Your task to perform on an android device: Search for Mexican restaurants on Maps Image 0: 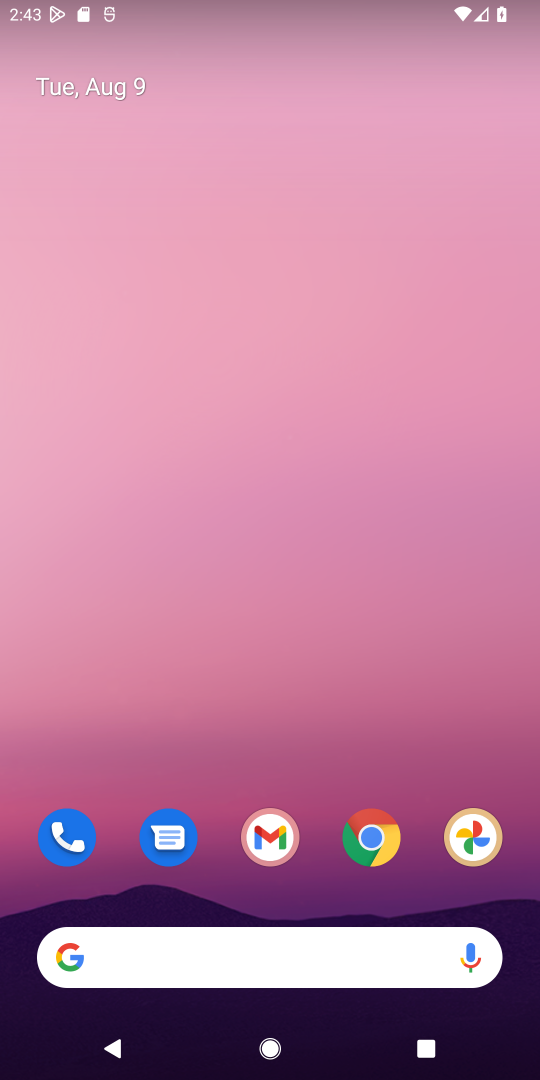
Step 0: drag from (279, 886) to (346, 364)
Your task to perform on an android device: Search for Mexican restaurants on Maps Image 1: 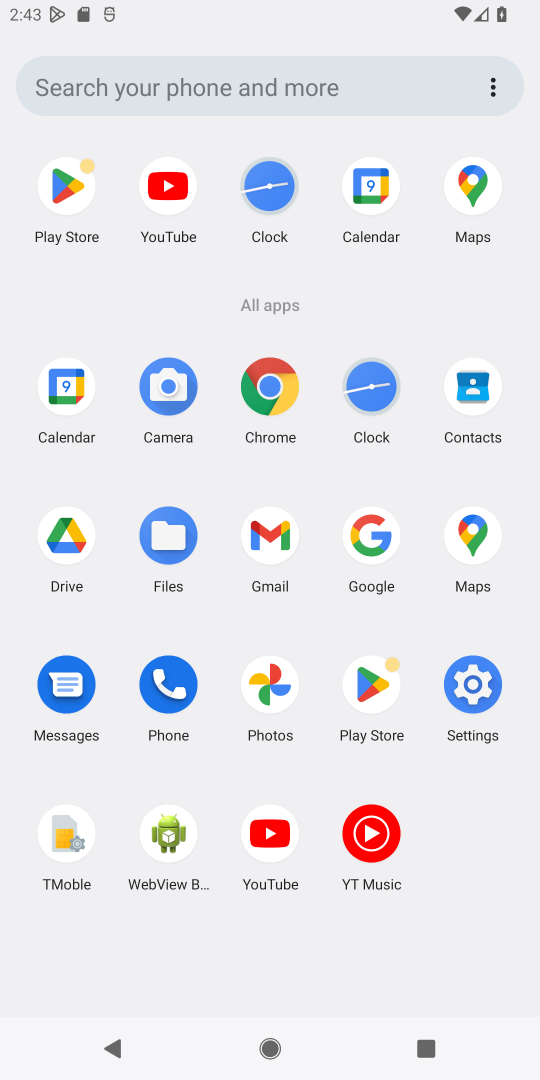
Step 1: click (467, 187)
Your task to perform on an android device: Search for Mexican restaurants on Maps Image 2: 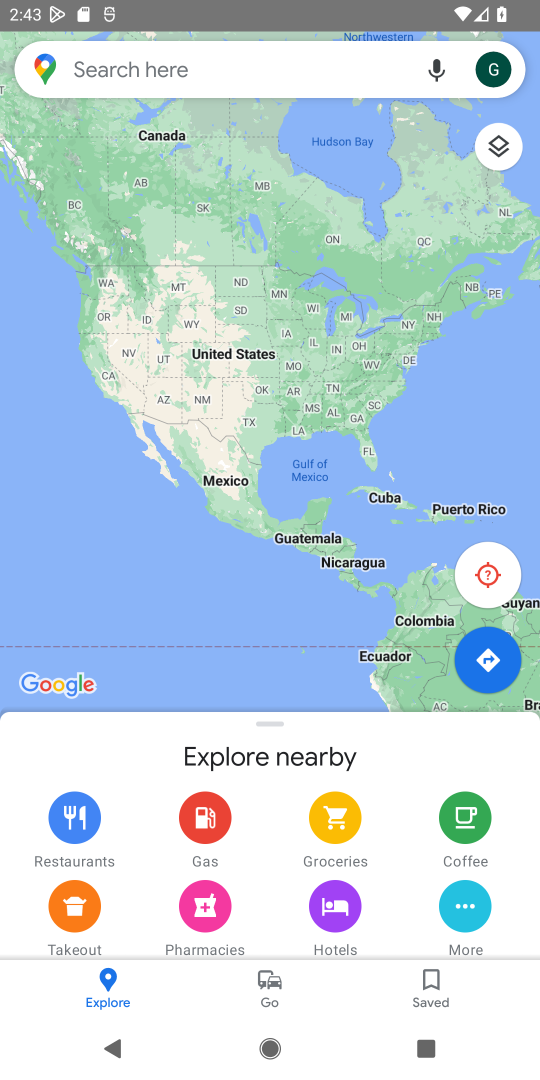
Step 2: click (308, 77)
Your task to perform on an android device: Search for Mexican restaurants on Maps Image 3: 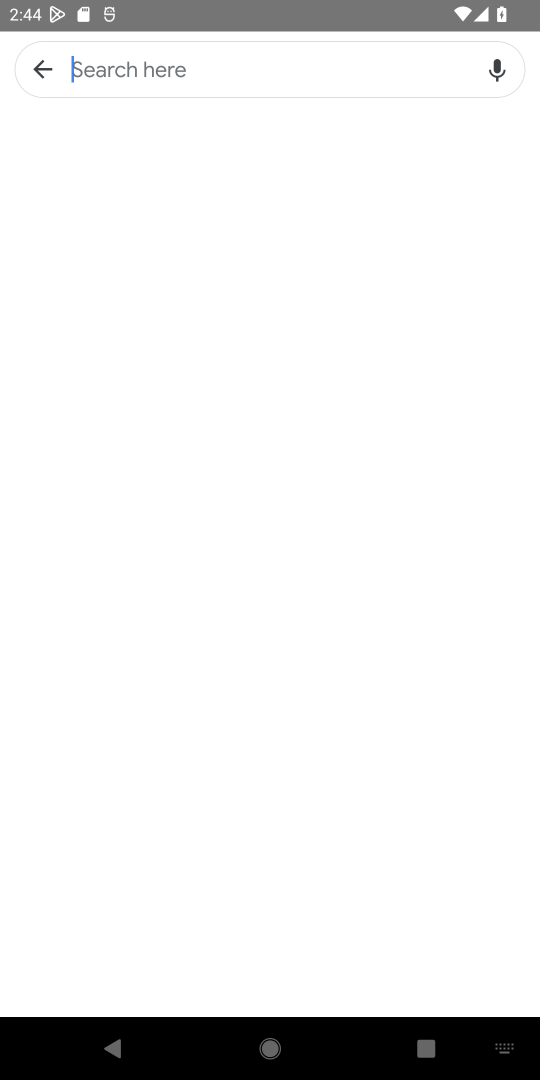
Step 3: click (257, 73)
Your task to perform on an android device: Search for Mexican restaurants on Maps Image 4: 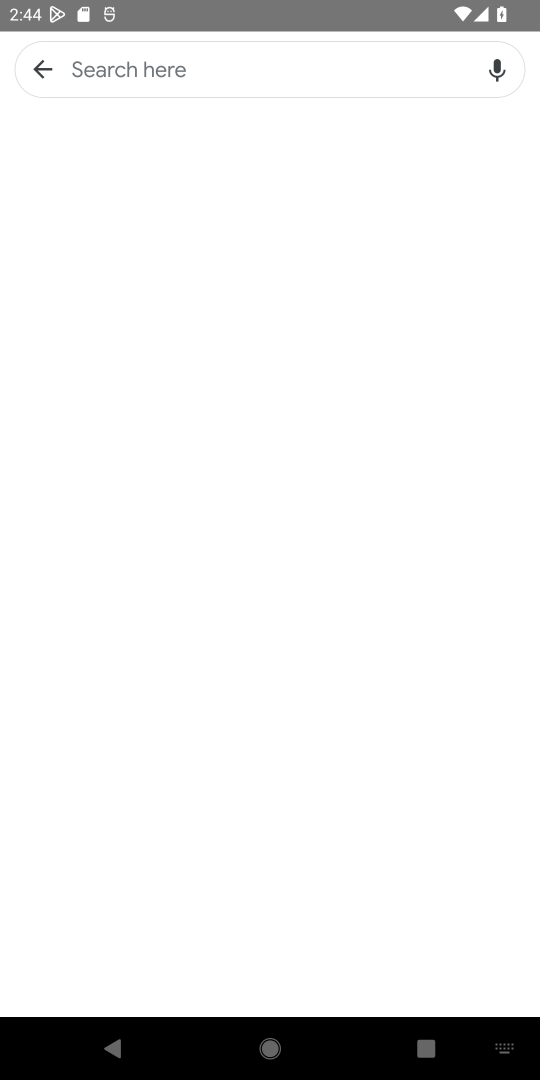
Step 4: type " Mexican restaurants  "
Your task to perform on an android device: Search for Mexican restaurants on Maps Image 5: 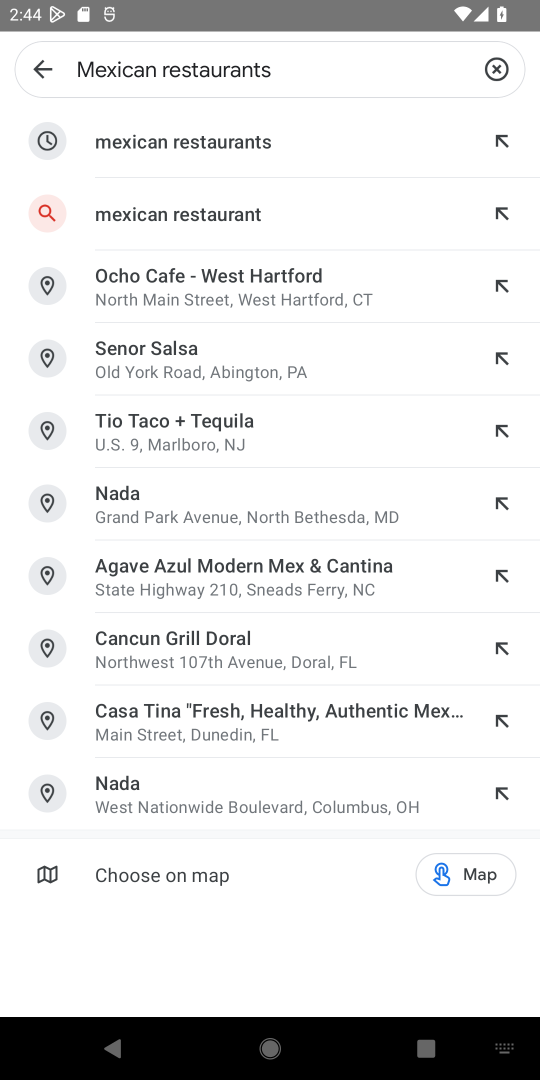
Step 5: click (134, 171)
Your task to perform on an android device: Search for Mexican restaurants on Maps Image 6: 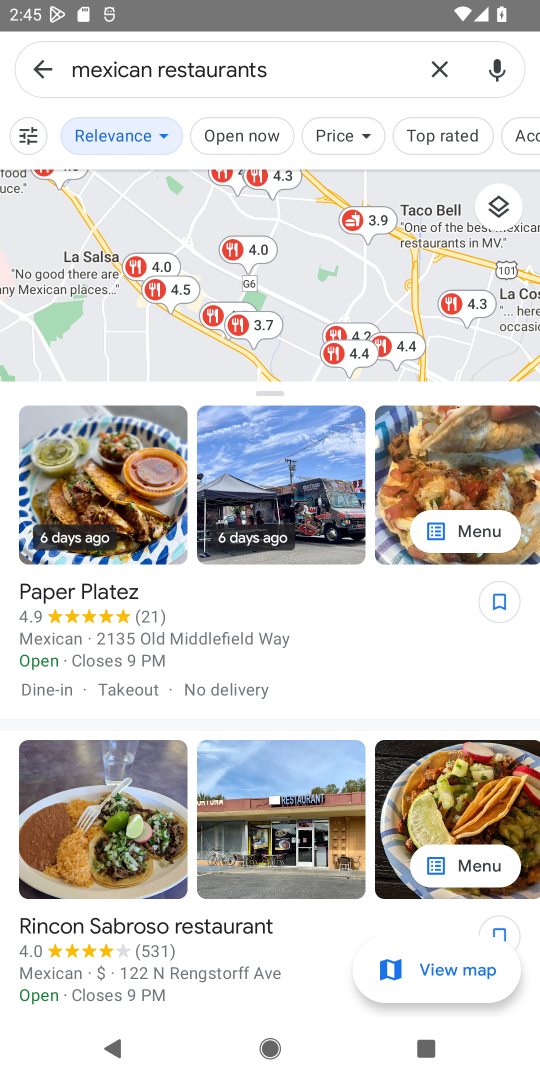
Step 6: task complete